Your task to perform on an android device: Turn off the flashlight Image 0: 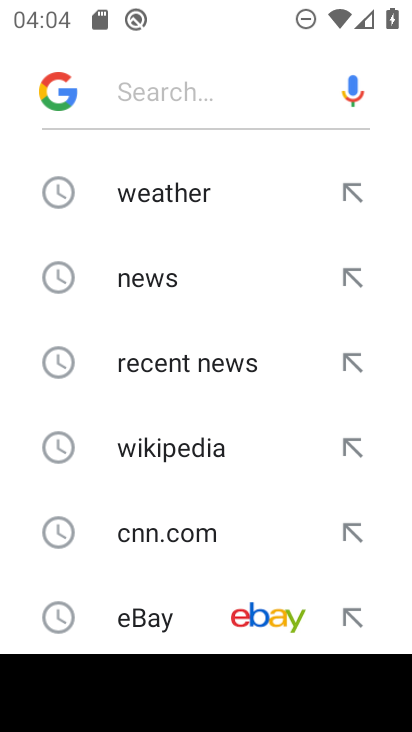
Step 0: press home button
Your task to perform on an android device: Turn off the flashlight Image 1: 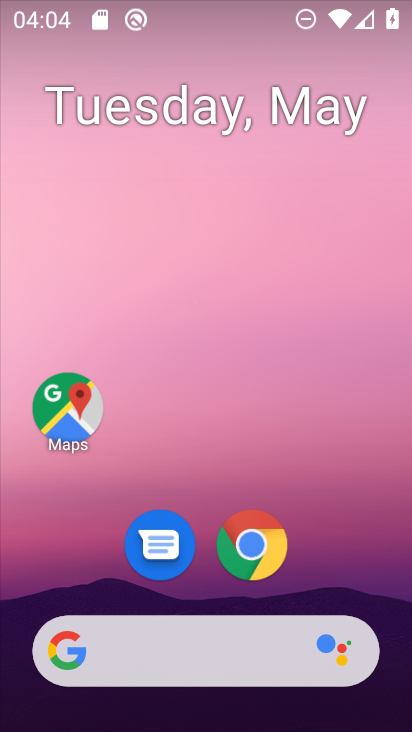
Step 1: drag from (201, 19) to (284, 445)
Your task to perform on an android device: Turn off the flashlight Image 2: 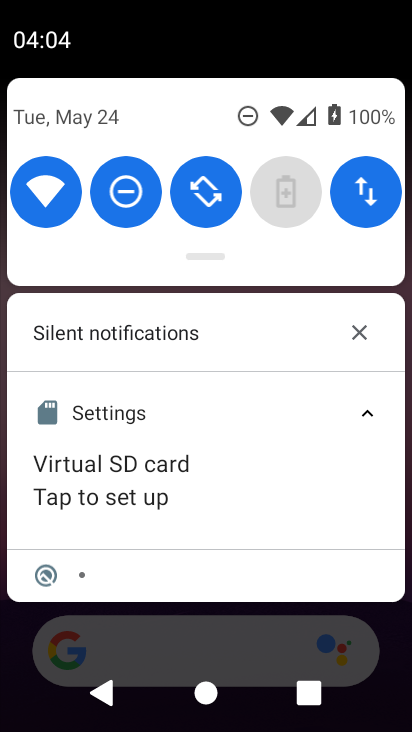
Step 2: drag from (198, 251) to (213, 565)
Your task to perform on an android device: Turn off the flashlight Image 3: 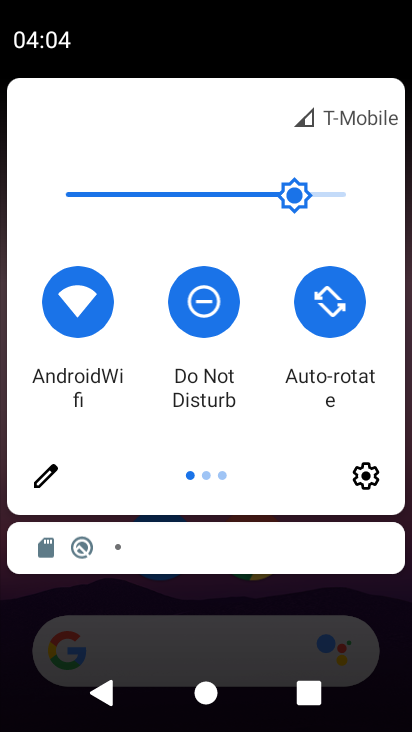
Step 3: click (41, 473)
Your task to perform on an android device: Turn off the flashlight Image 4: 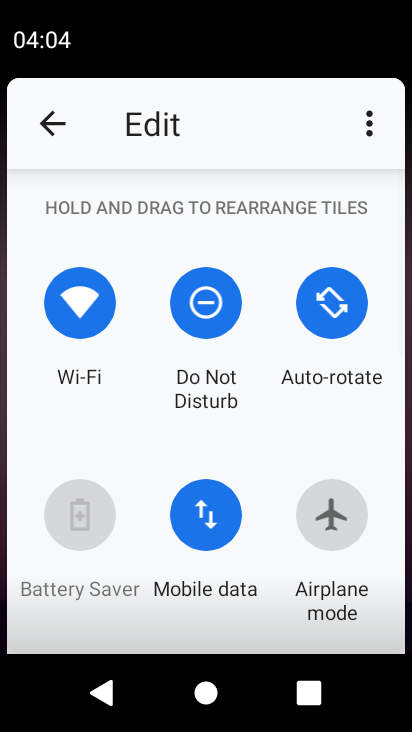
Step 4: task complete